Your task to perform on an android device: open app "Microsoft Authenticator" (install if not already installed) Image 0: 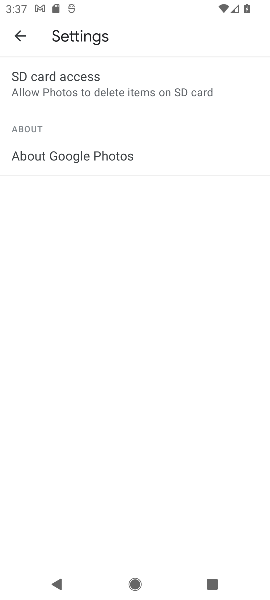
Step 0: press home button
Your task to perform on an android device: open app "Microsoft Authenticator" (install if not already installed) Image 1: 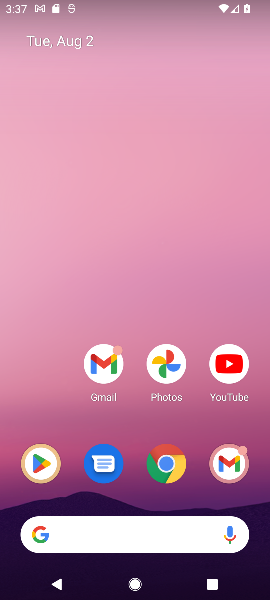
Step 1: click (39, 464)
Your task to perform on an android device: open app "Microsoft Authenticator" (install if not already installed) Image 2: 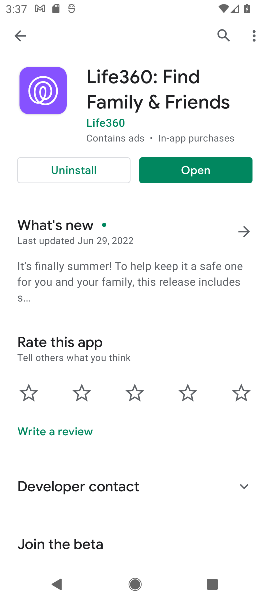
Step 2: click (221, 33)
Your task to perform on an android device: open app "Microsoft Authenticator" (install if not already installed) Image 3: 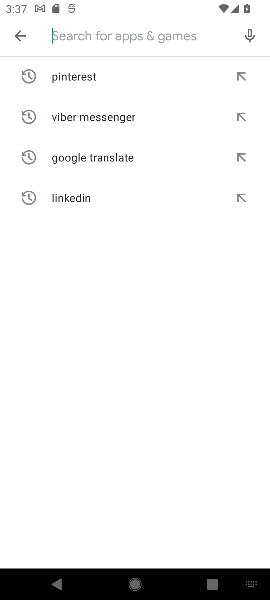
Step 3: type "Microsoft Authenticator"
Your task to perform on an android device: open app "Microsoft Authenticator" (install if not already installed) Image 4: 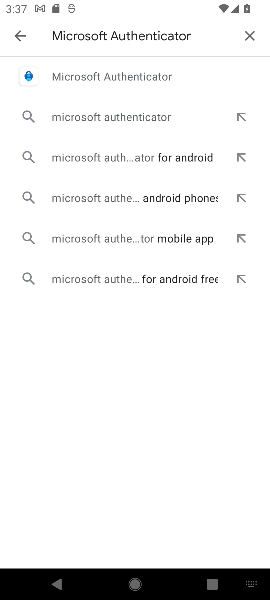
Step 4: click (132, 72)
Your task to perform on an android device: open app "Microsoft Authenticator" (install if not already installed) Image 5: 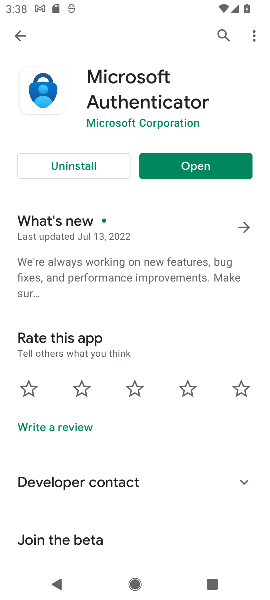
Step 5: click (191, 169)
Your task to perform on an android device: open app "Microsoft Authenticator" (install if not already installed) Image 6: 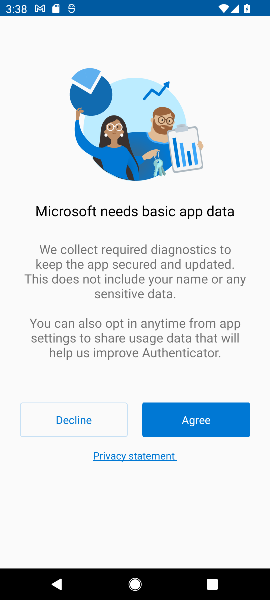
Step 6: task complete